Your task to perform on an android device: Open Yahoo.com Image 0: 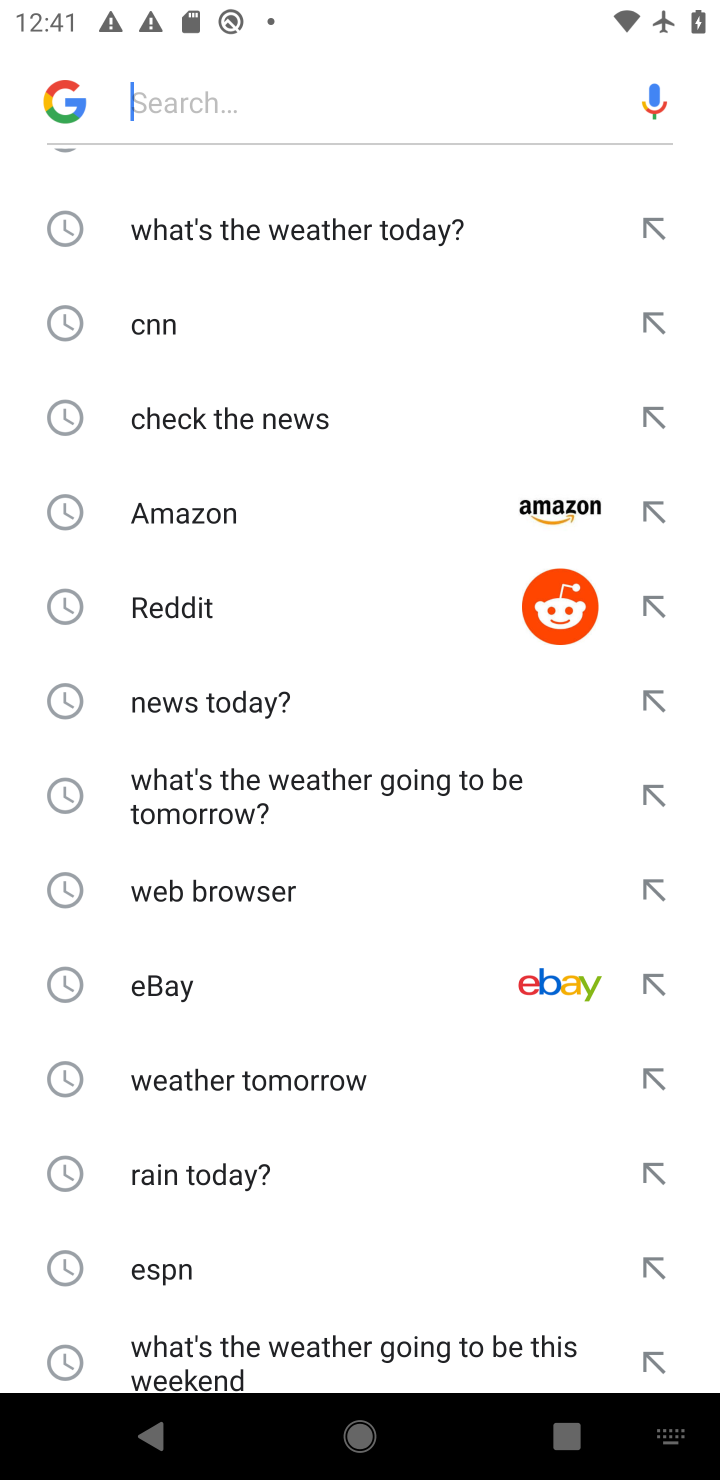
Step 0: press home button
Your task to perform on an android device: Open Yahoo.com Image 1: 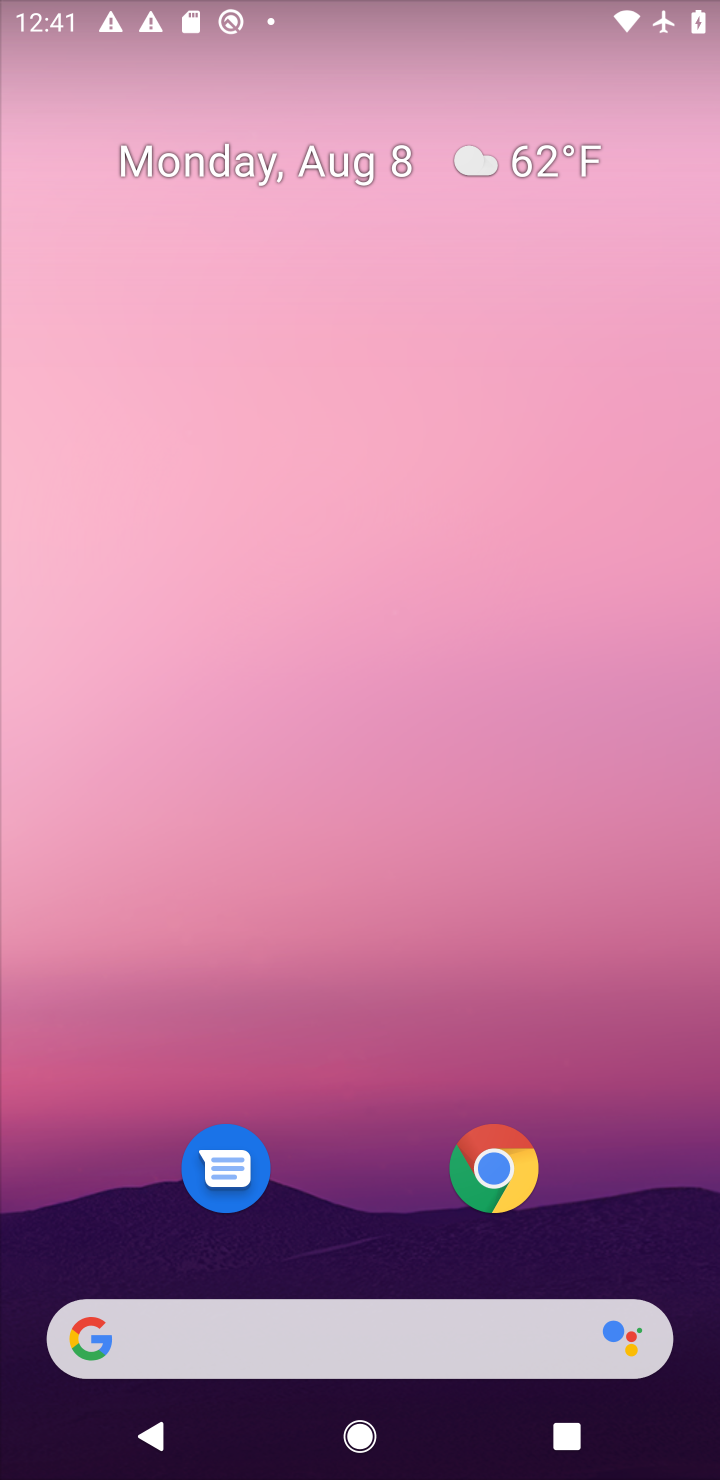
Step 1: drag from (292, 1275) to (143, 59)
Your task to perform on an android device: Open Yahoo.com Image 2: 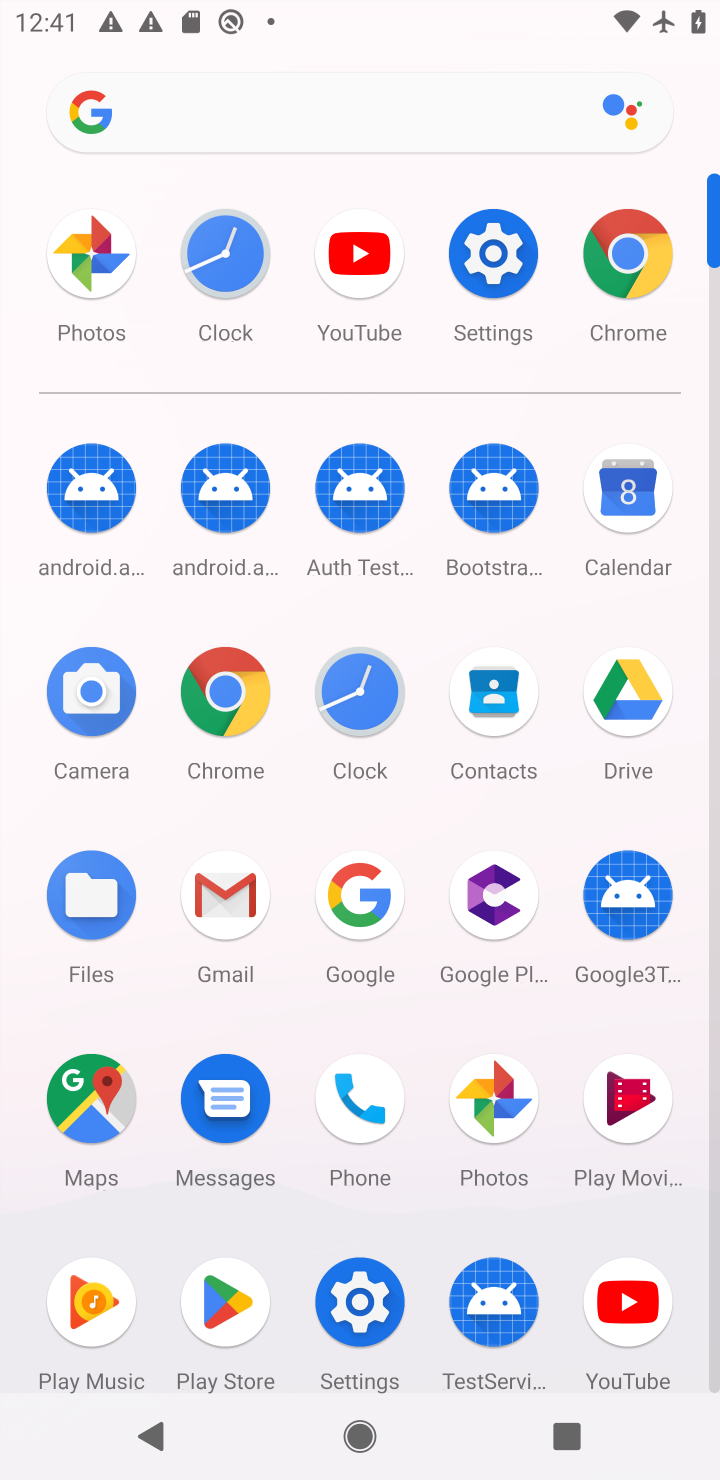
Step 2: click (615, 264)
Your task to perform on an android device: Open Yahoo.com Image 3: 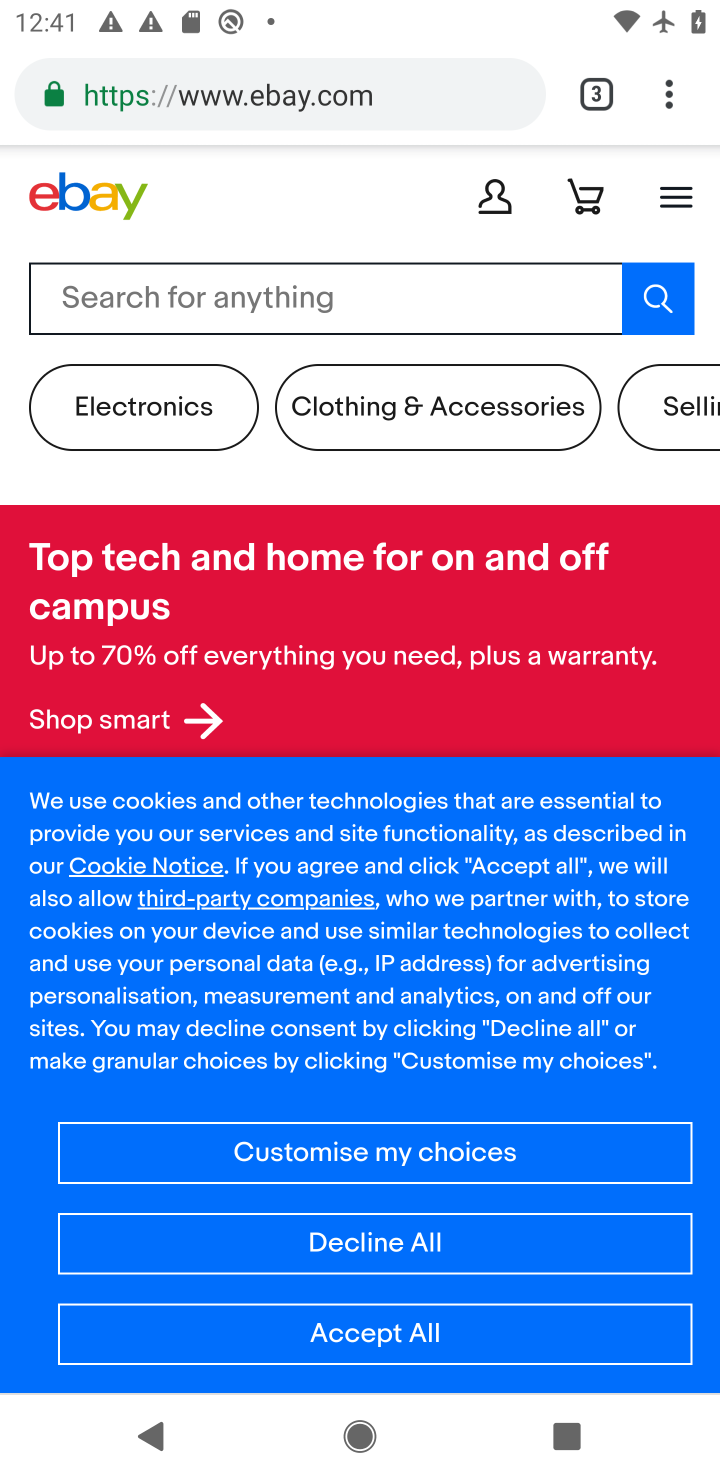
Step 3: click (361, 111)
Your task to perform on an android device: Open Yahoo.com Image 4: 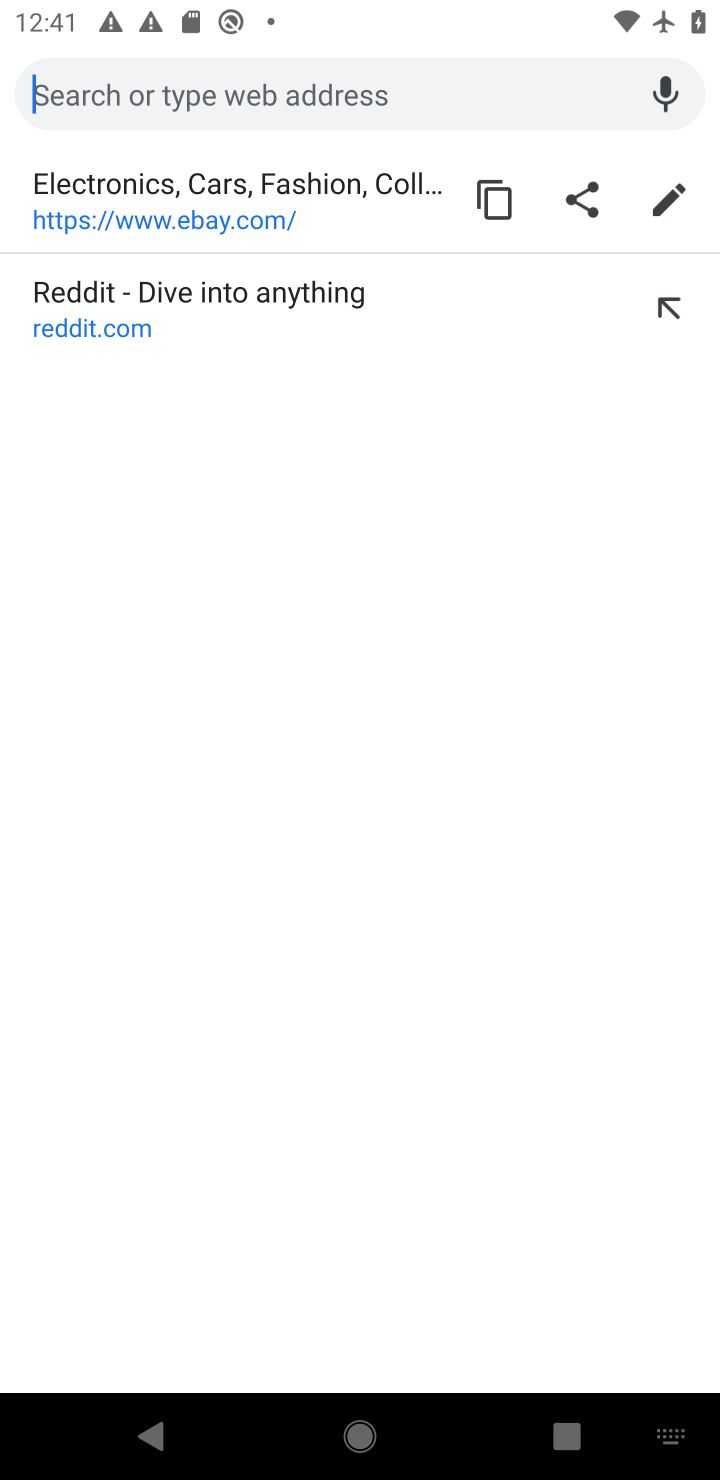
Step 4: type "yahoo.com"
Your task to perform on an android device: Open Yahoo.com Image 5: 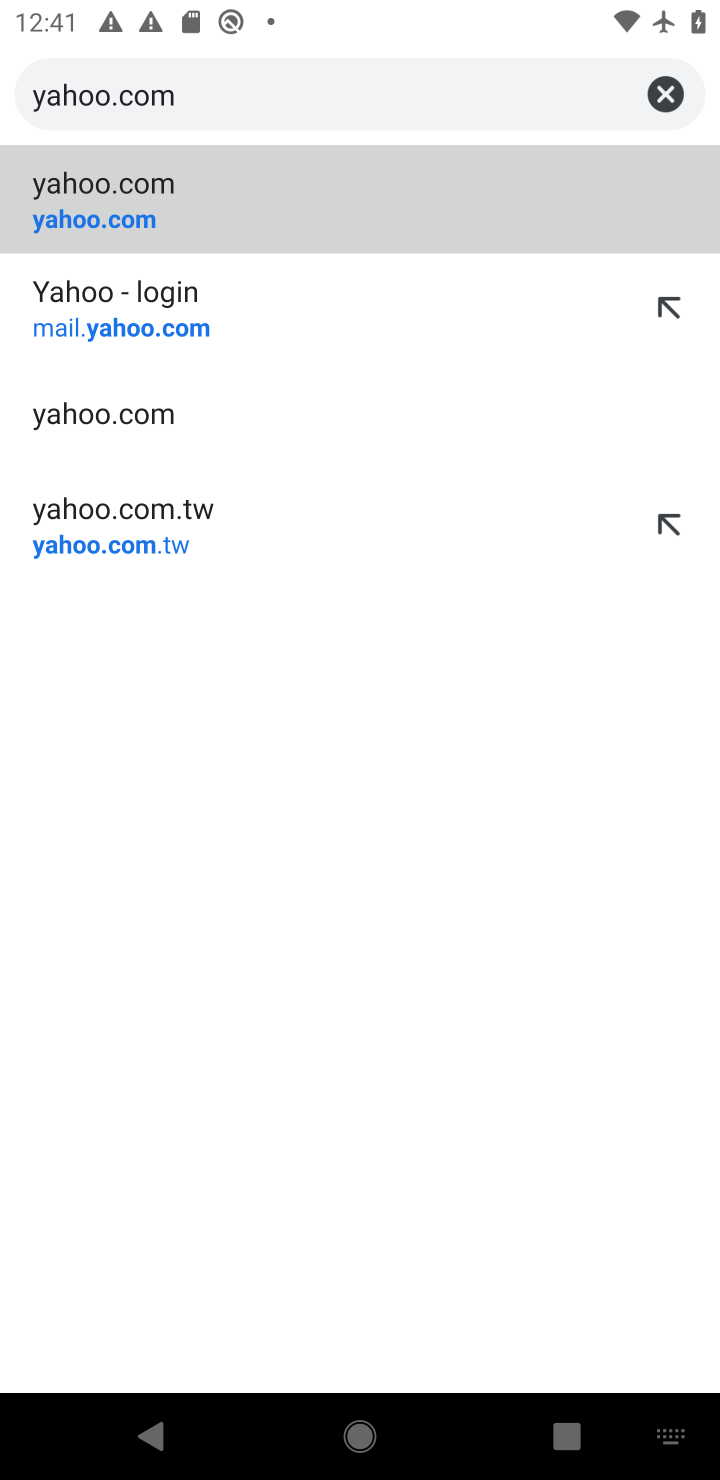
Step 5: click (207, 195)
Your task to perform on an android device: Open Yahoo.com Image 6: 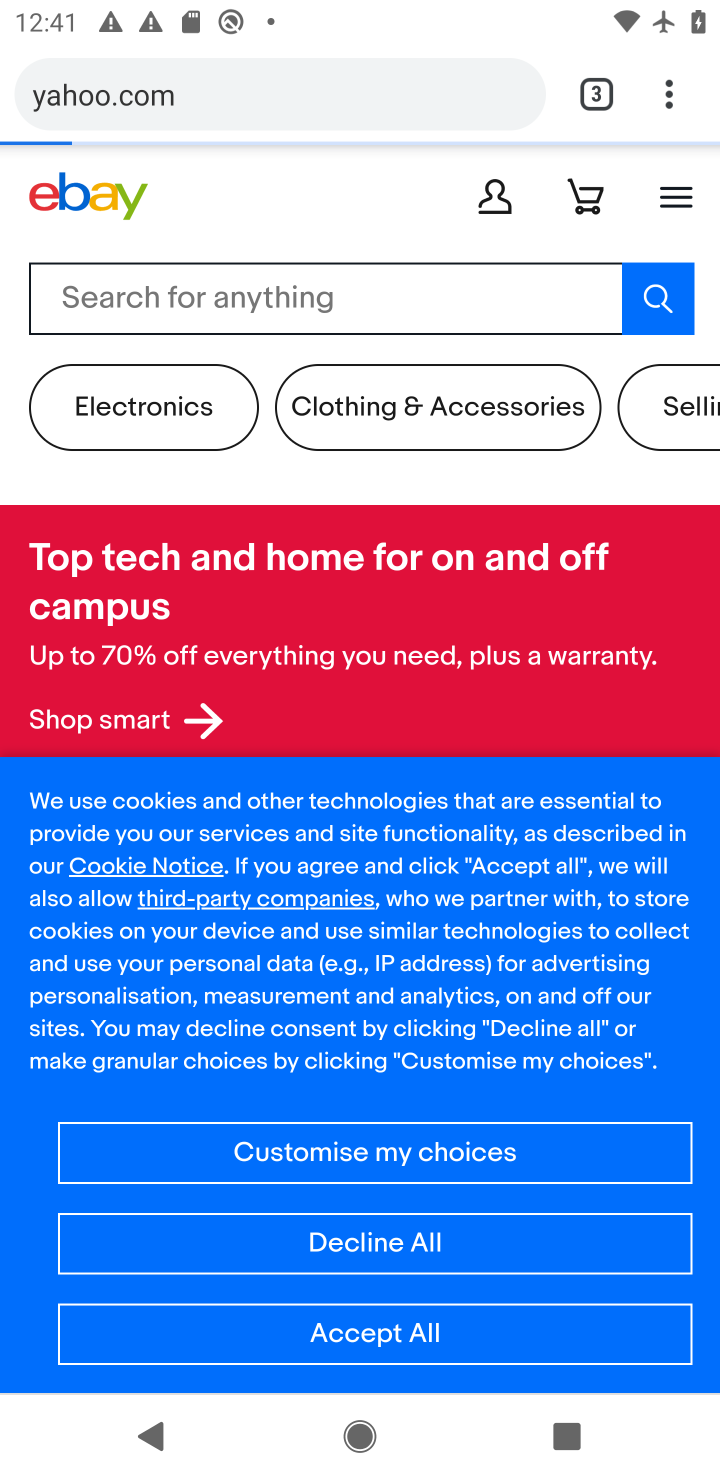
Step 6: task complete